Your task to perform on an android device: Show me recent news Image 0: 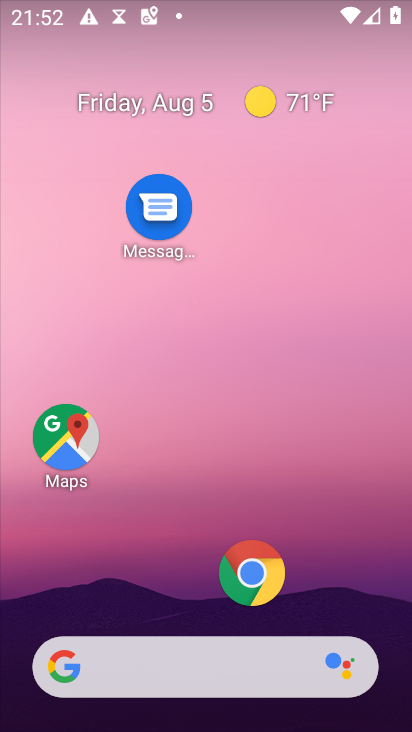
Step 0: press home button
Your task to perform on an android device: Show me recent news Image 1: 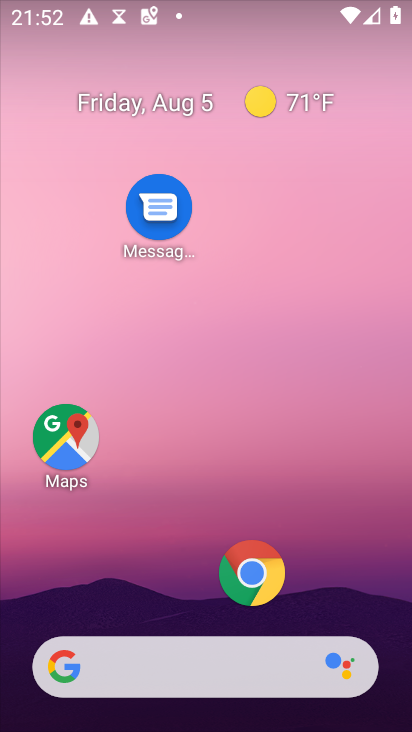
Step 1: task complete